Your task to perform on an android device: Add acer nitro to the cart on target.com Image 0: 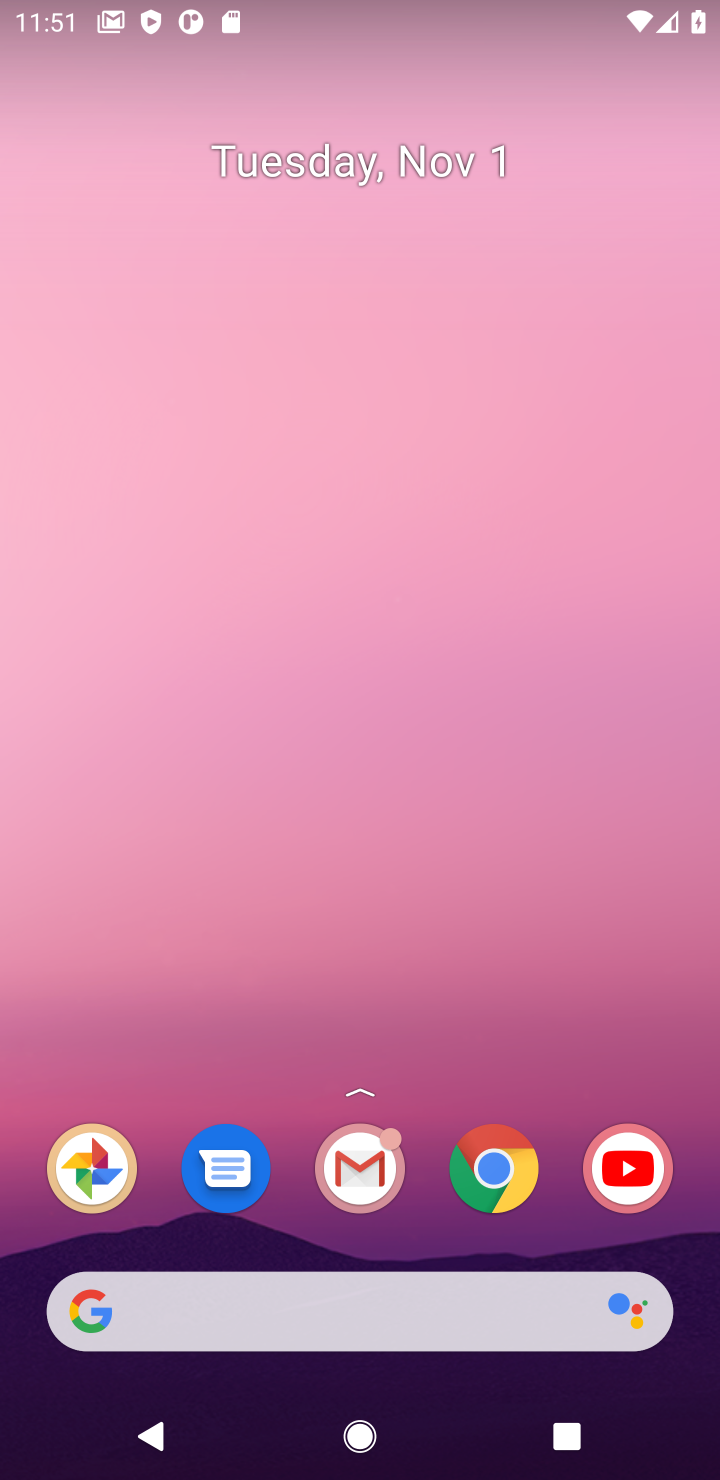
Step 0: click (473, 1167)
Your task to perform on an android device: Add acer nitro to the cart on target.com Image 1: 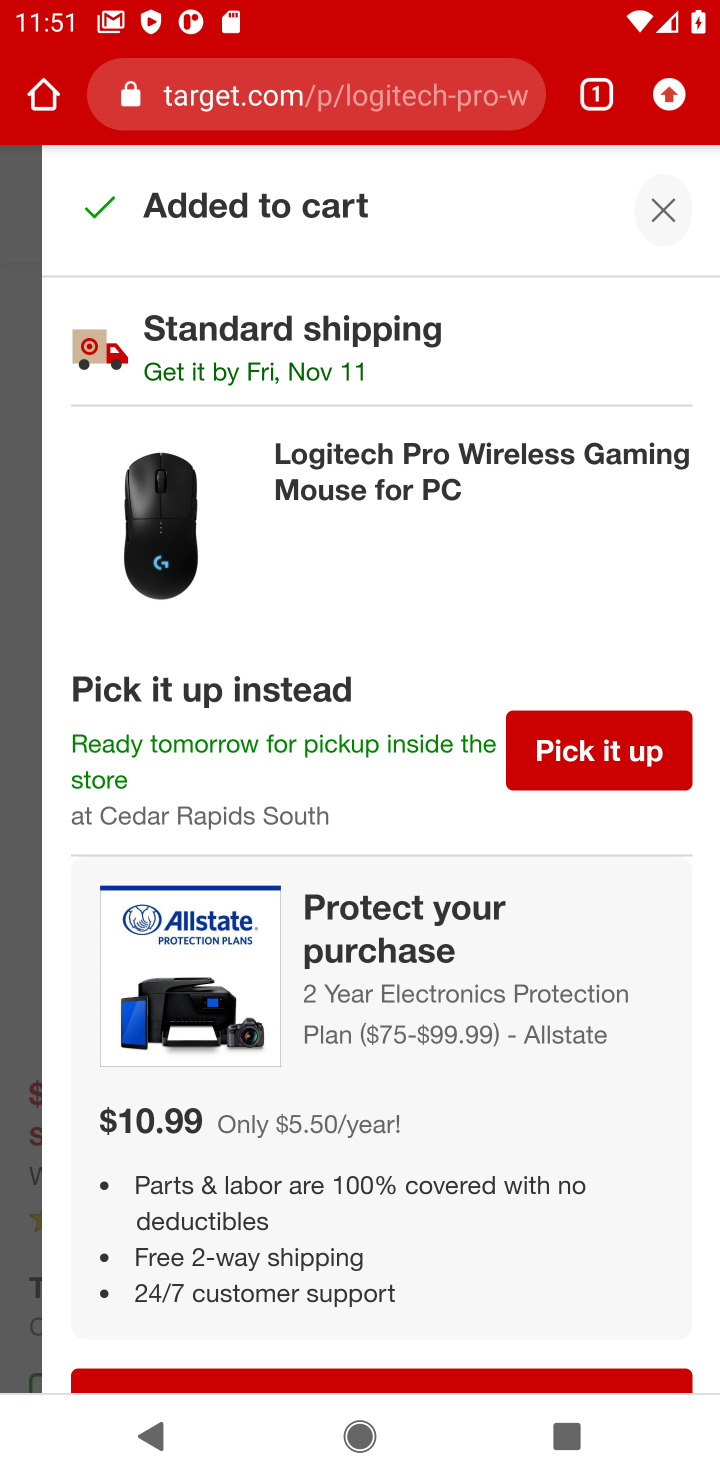
Step 1: click (417, 80)
Your task to perform on an android device: Add acer nitro to the cart on target.com Image 2: 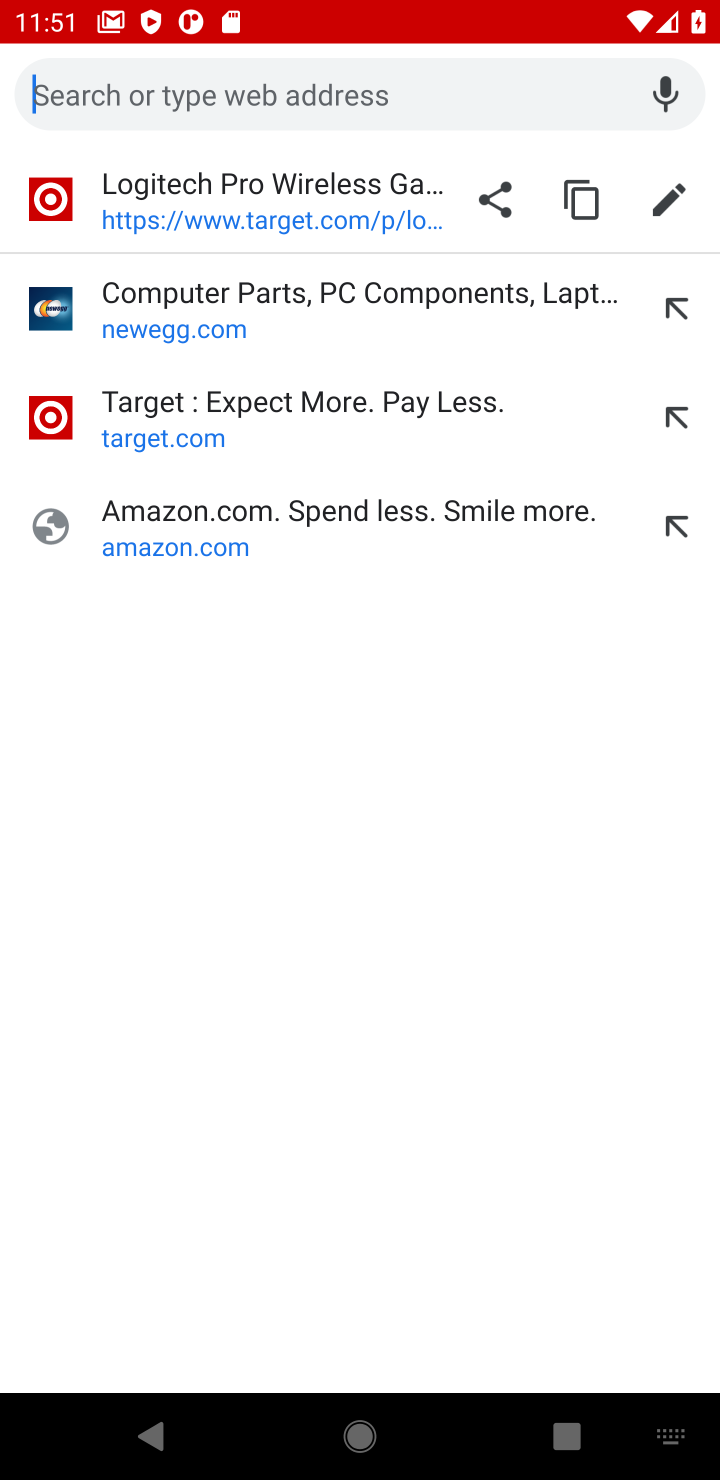
Step 2: type "target.com"
Your task to perform on an android device: Add acer nitro to the cart on target.com Image 3: 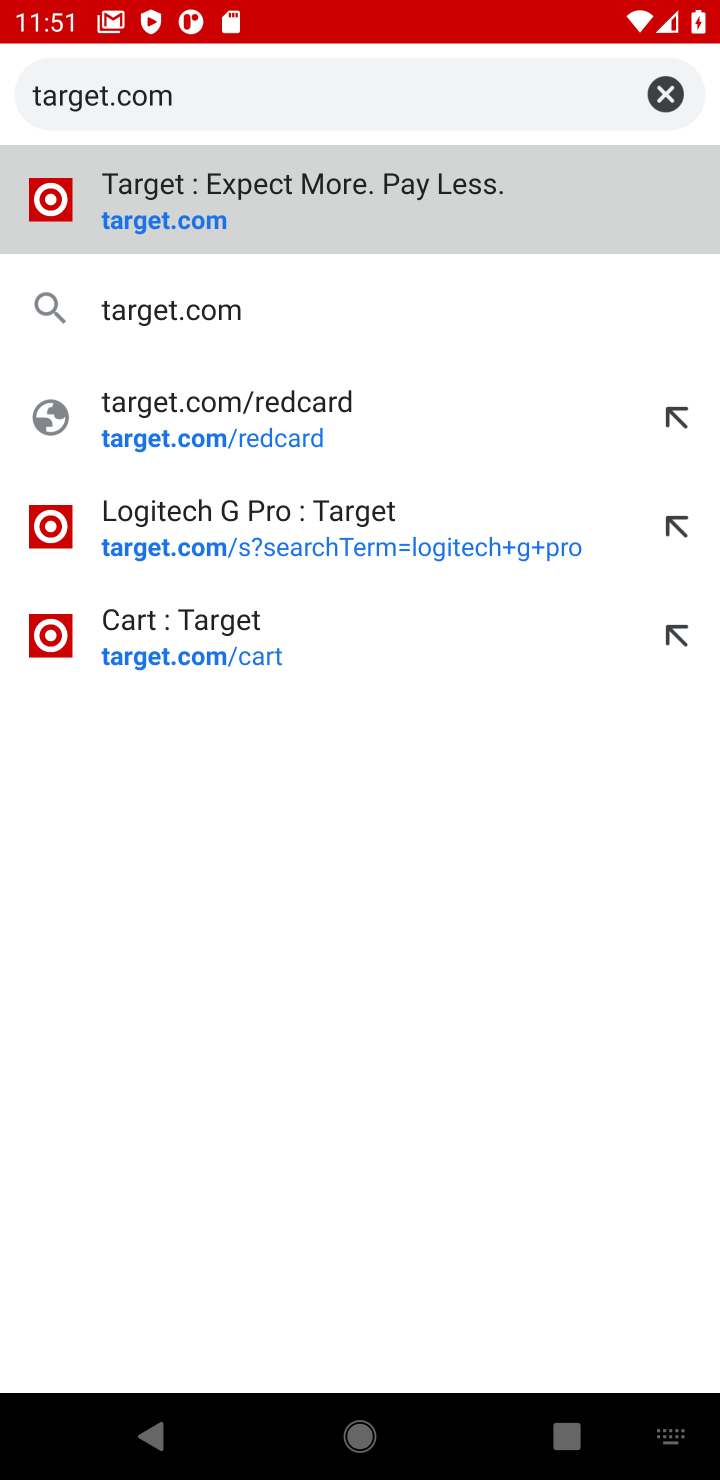
Step 3: press enter
Your task to perform on an android device: Add acer nitro to the cart on target.com Image 4: 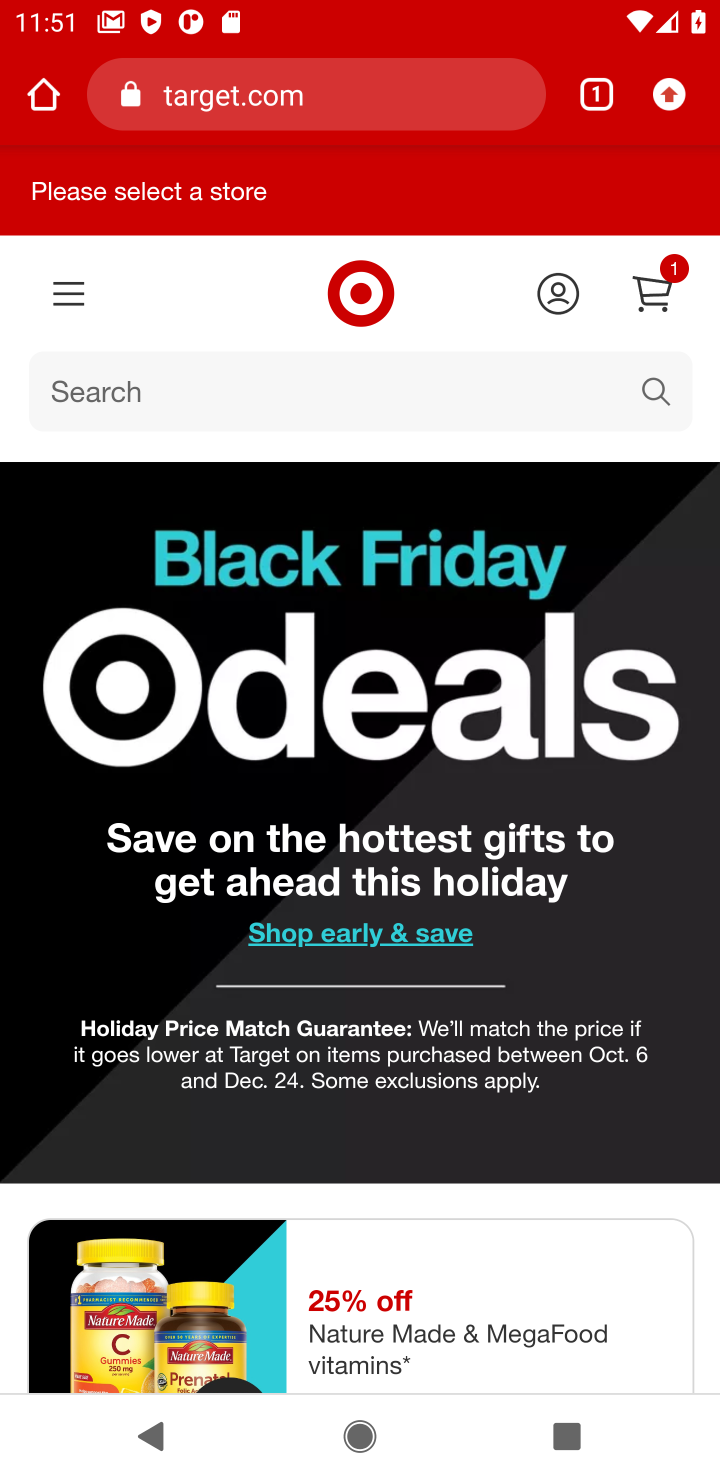
Step 4: click (317, 414)
Your task to perform on an android device: Add acer nitro to the cart on target.com Image 5: 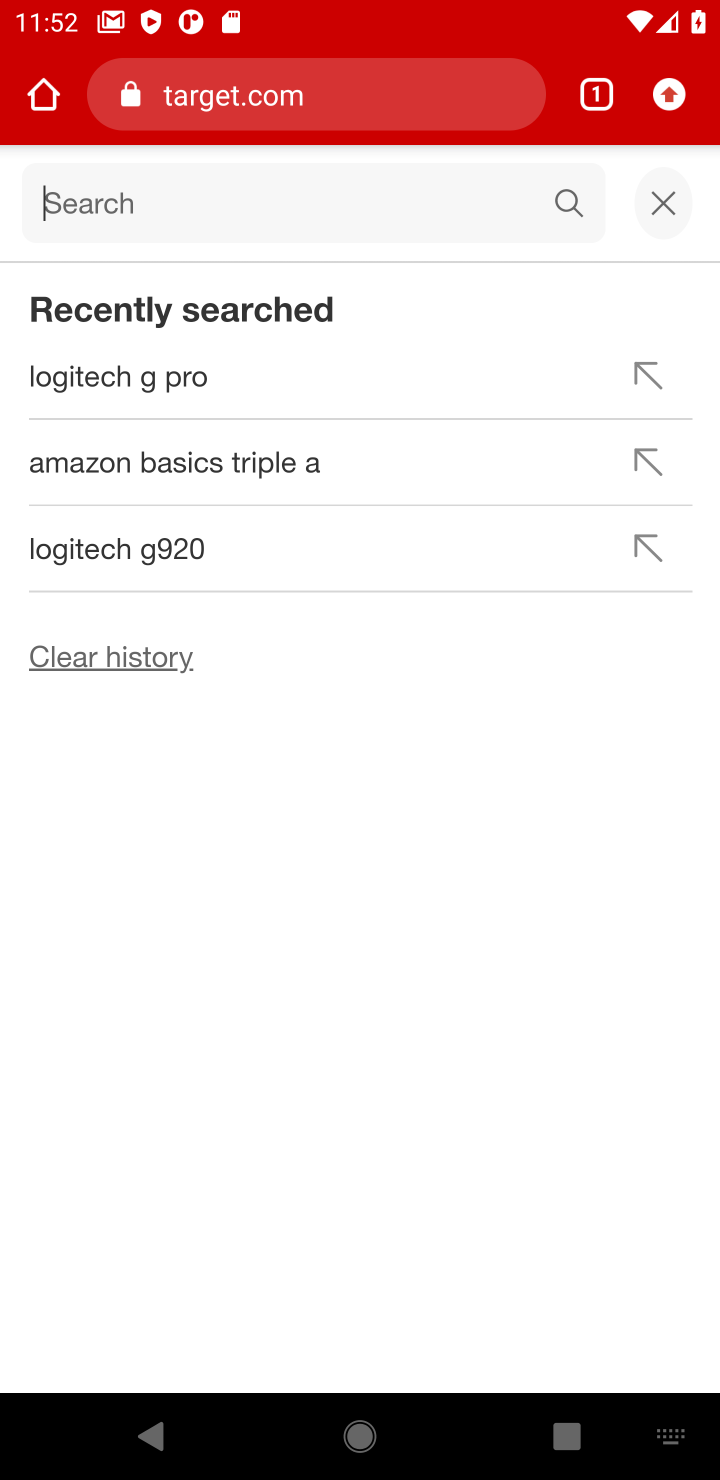
Step 5: type "acer nitro"
Your task to perform on an android device: Add acer nitro to the cart on target.com Image 6: 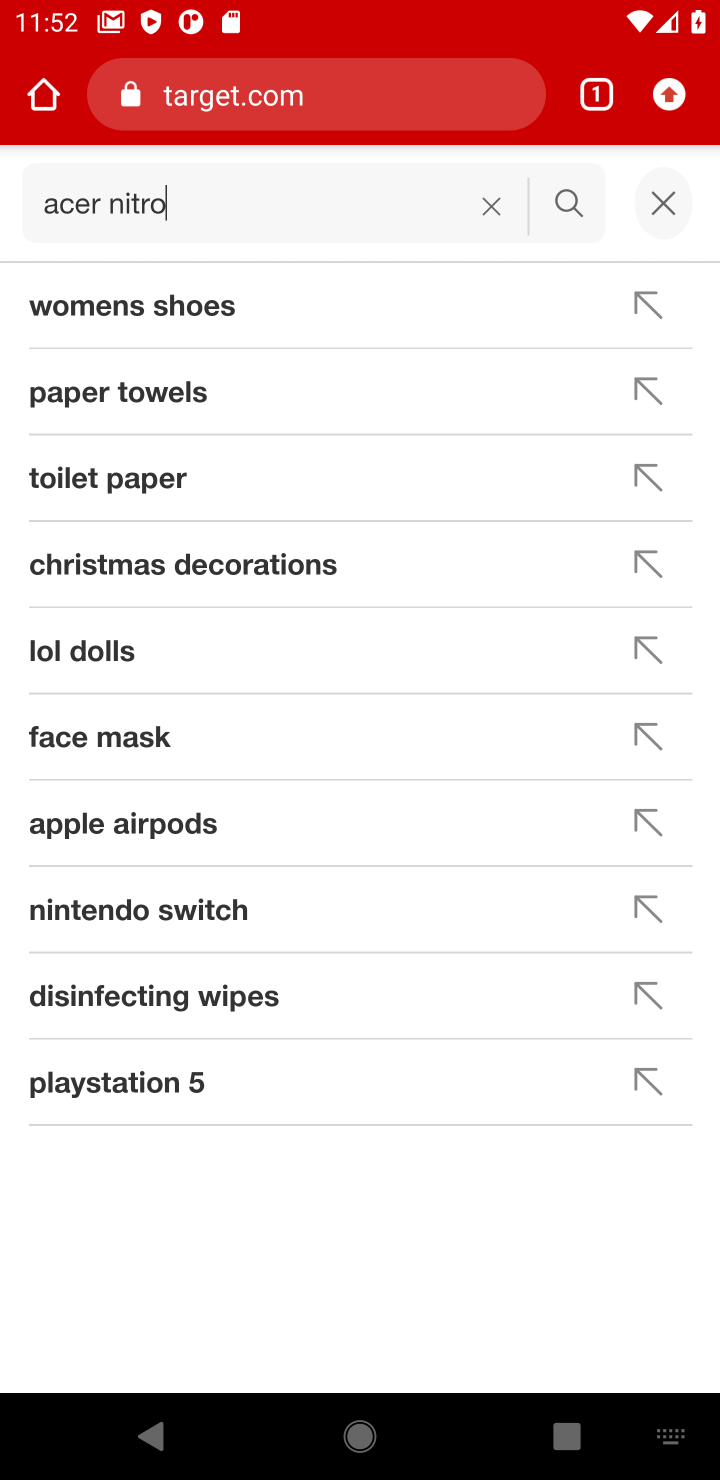
Step 6: press enter
Your task to perform on an android device: Add acer nitro to the cart on target.com Image 7: 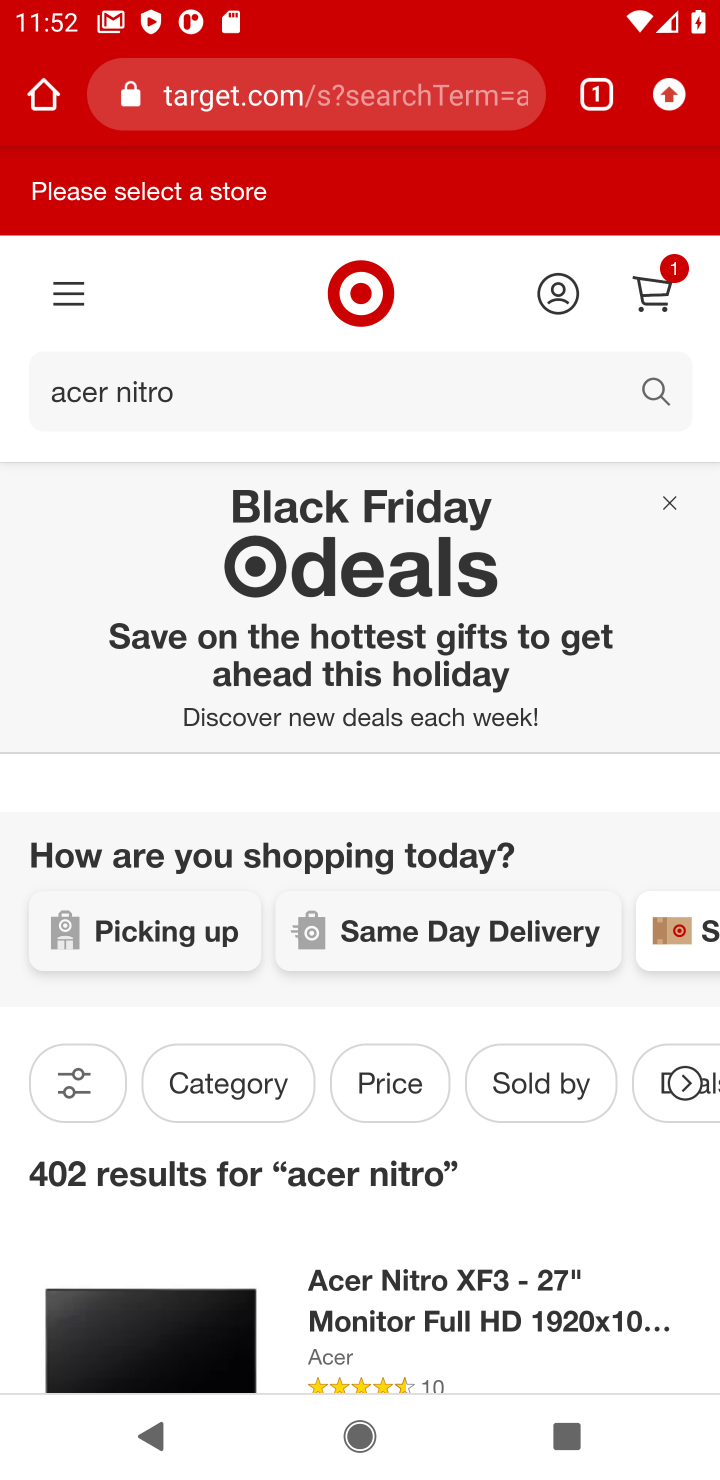
Step 7: click (396, 1302)
Your task to perform on an android device: Add acer nitro to the cart on target.com Image 8: 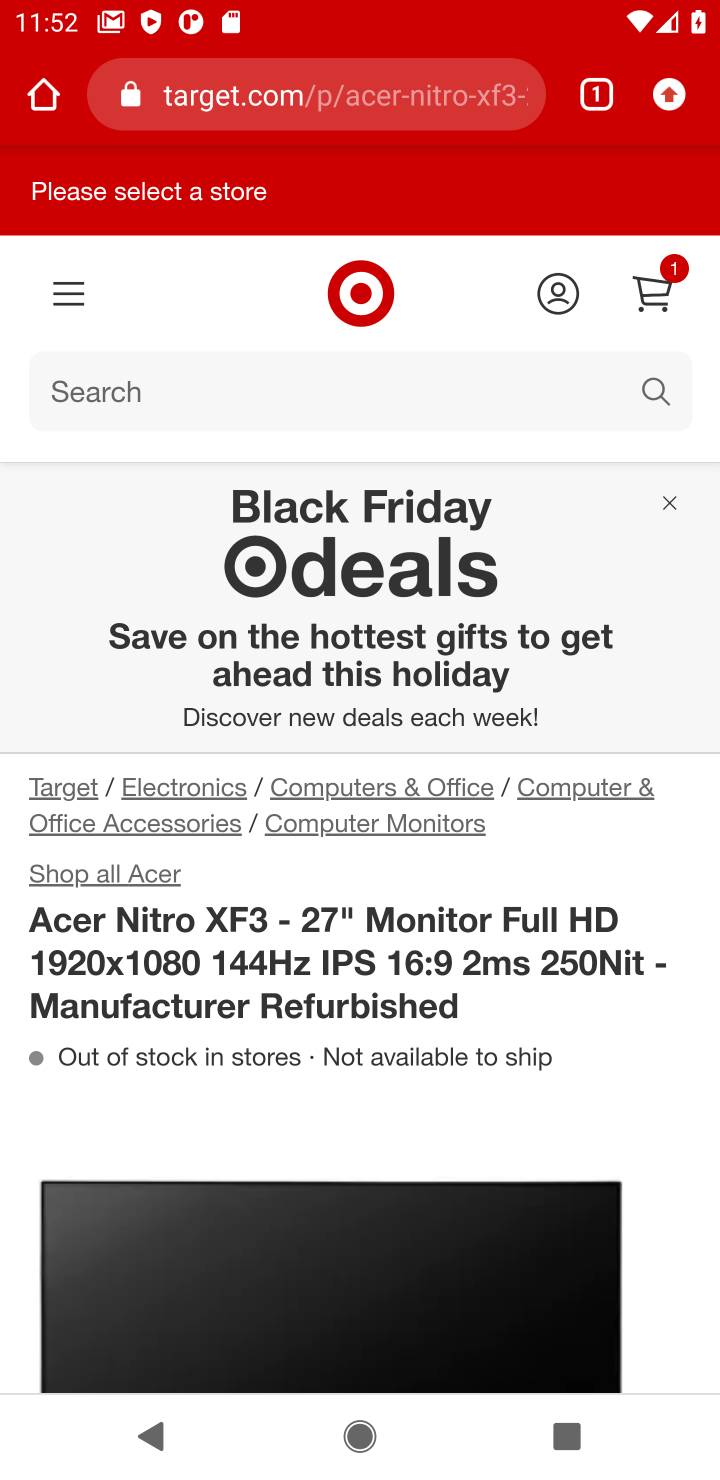
Step 8: drag from (582, 1051) to (612, 497)
Your task to perform on an android device: Add acer nitro to the cart on target.com Image 9: 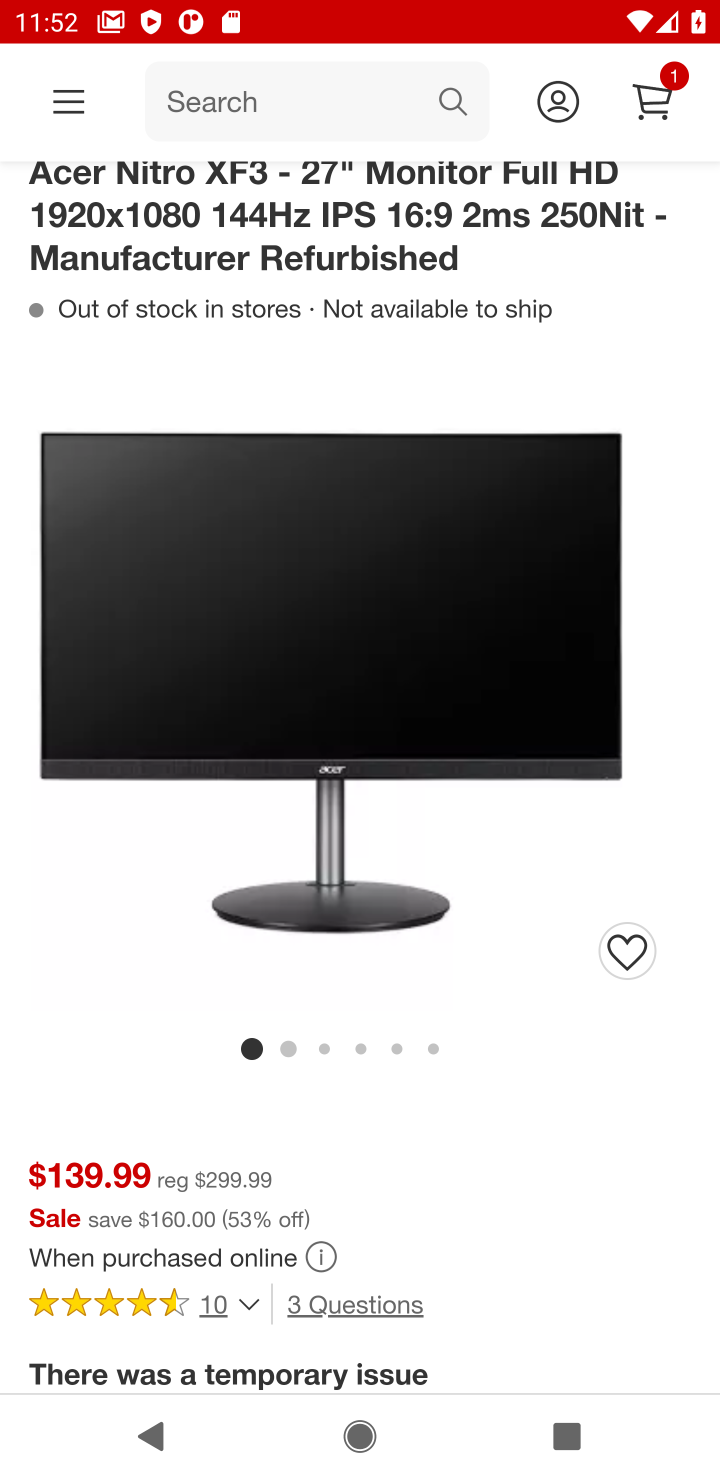
Step 9: drag from (517, 1056) to (514, 614)
Your task to perform on an android device: Add acer nitro to the cart on target.com Image 10: 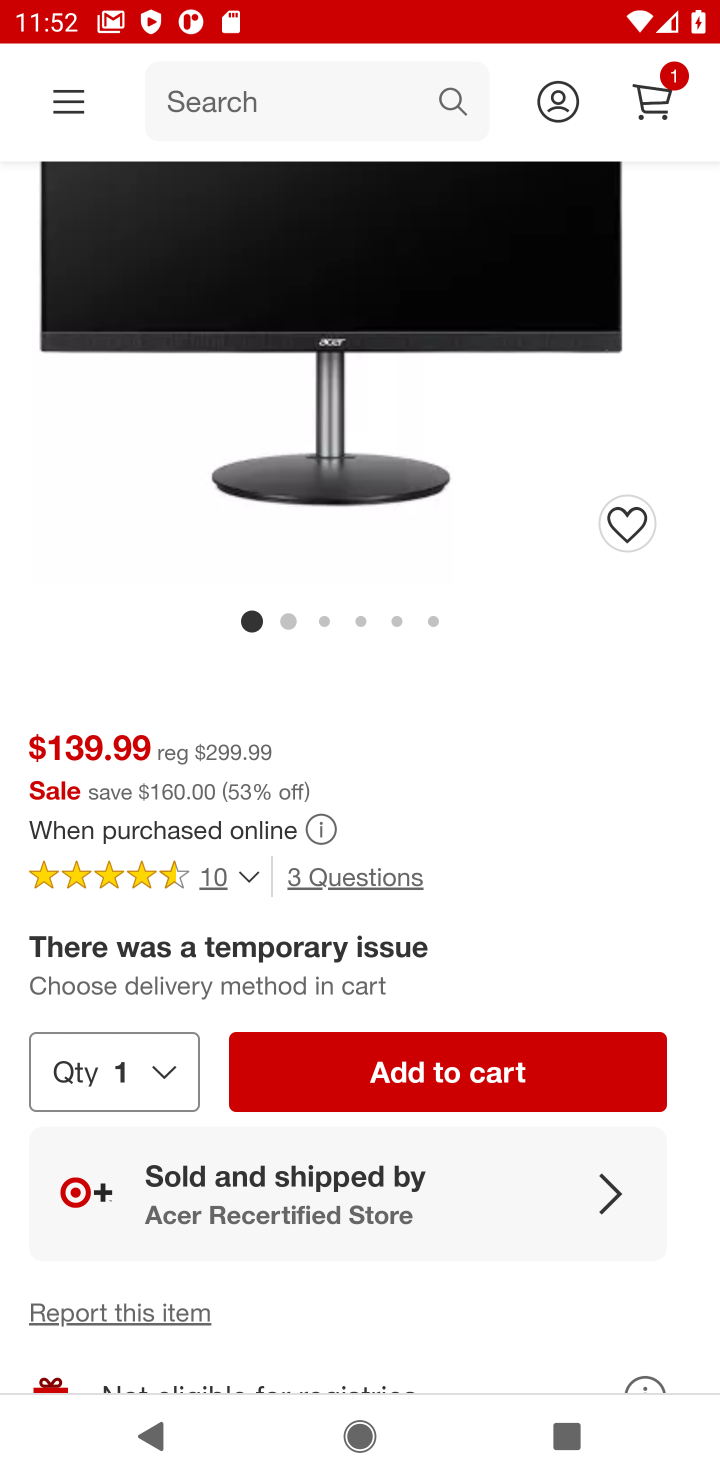
Step 10: click (503, 1054)
Your task to perform on an android device: Add acer nitro to the cart on target.com Image 11: 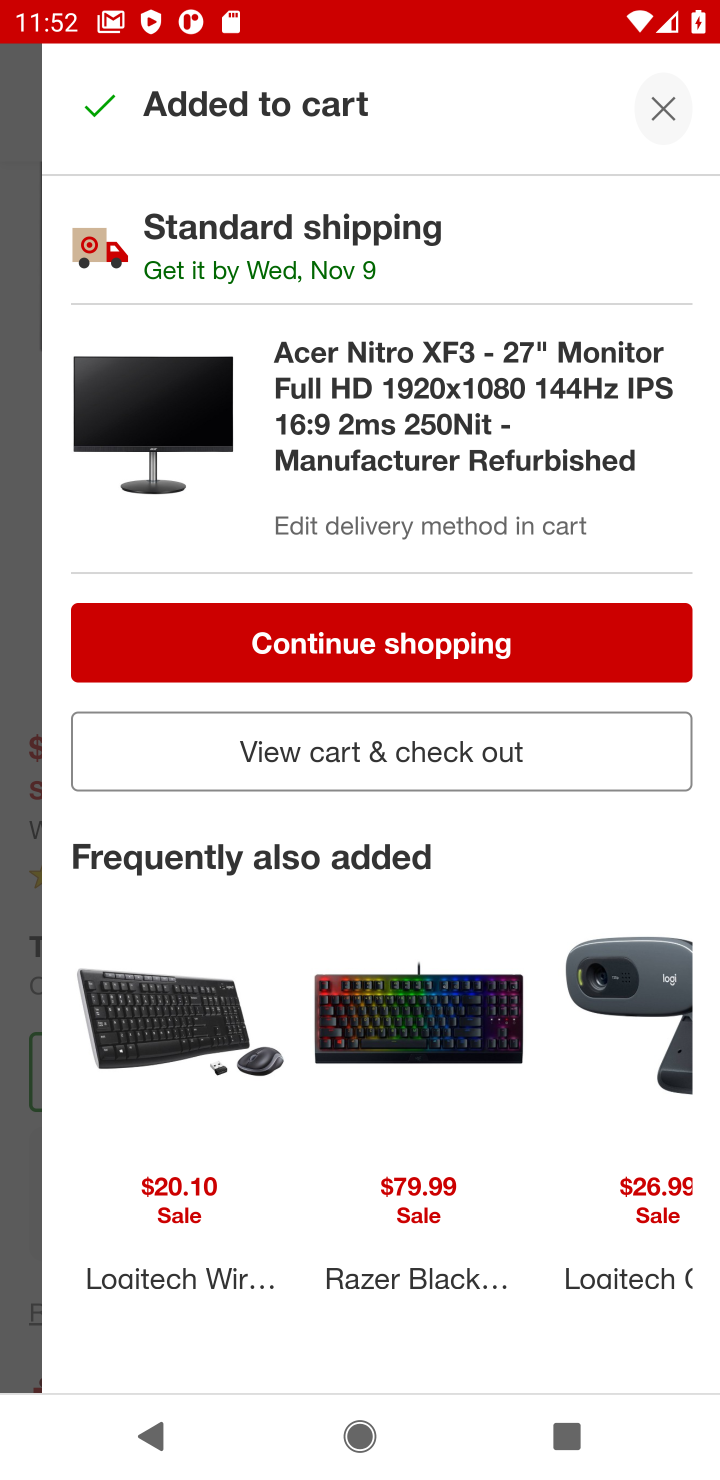
Step 11: task complete